Your task to perform on an android device: Play the last video I watched on Youtube Image 0: 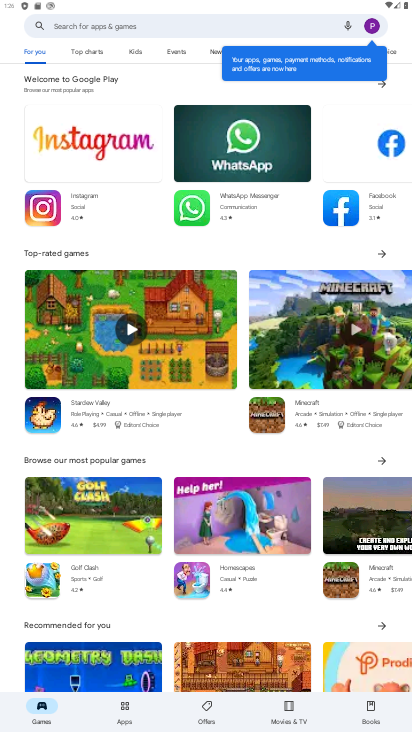
Step 0: press home button
Your task to perform on an android device: Play the last video I watched on Youtube Image 1: 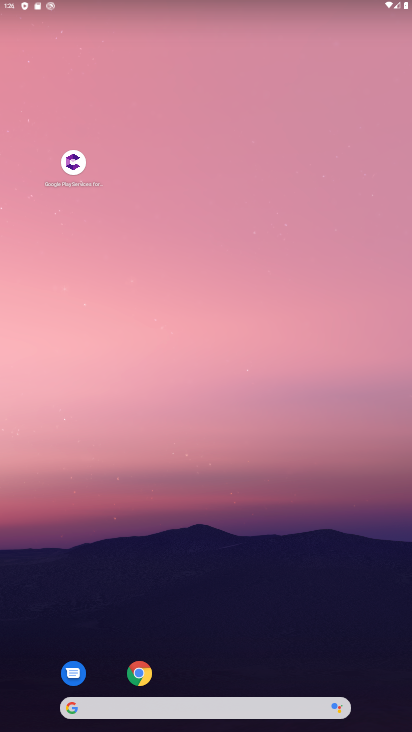
Step 1: drag from (247, 666) to (256, 89)
Your task to perform on an android device: Play the last video I watched on Youtube Image 2: 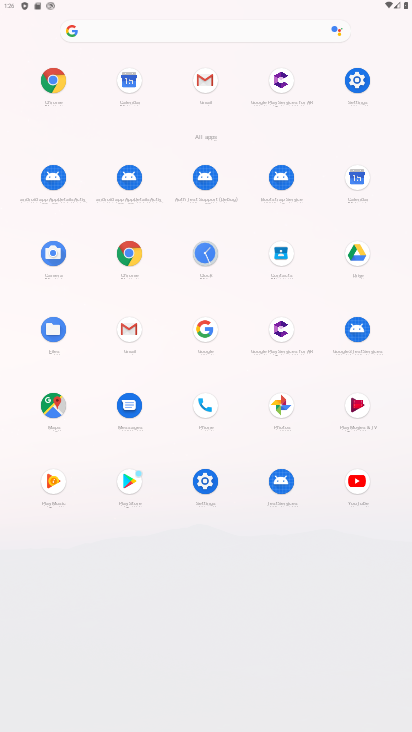
Step 2: click (357, 483)
Your task to perform on an android device: Play the last video I watched on Youtube Image 3: 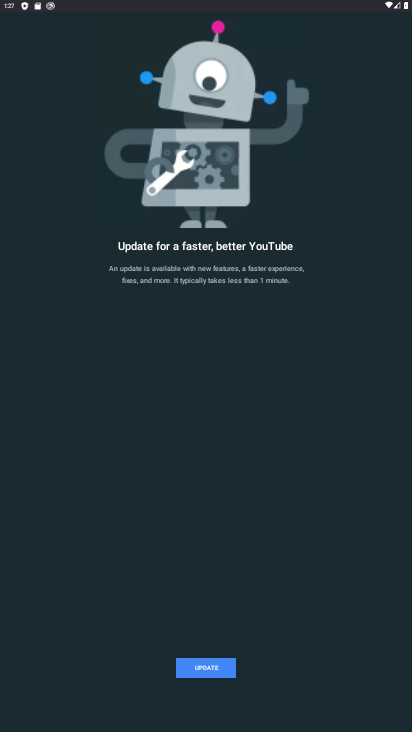
Step 3: click (204, 673)
Your task to perform on an android device: Play the last video I watched on Youtube Image 4: 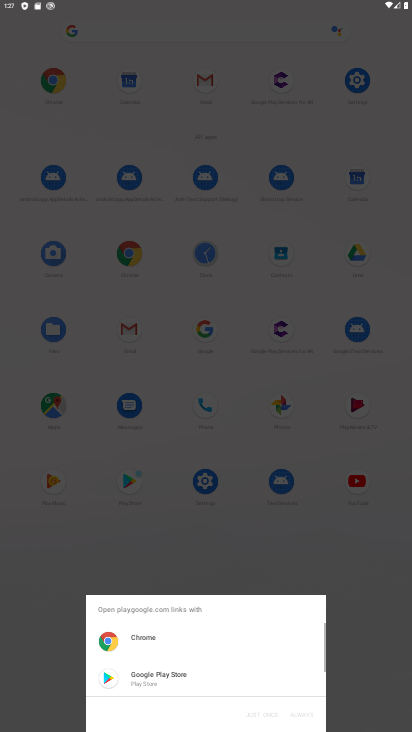
Step 4: click (155, 675)
Your task to perform on an android device: Play the last video I watched on Youtube Image 5: 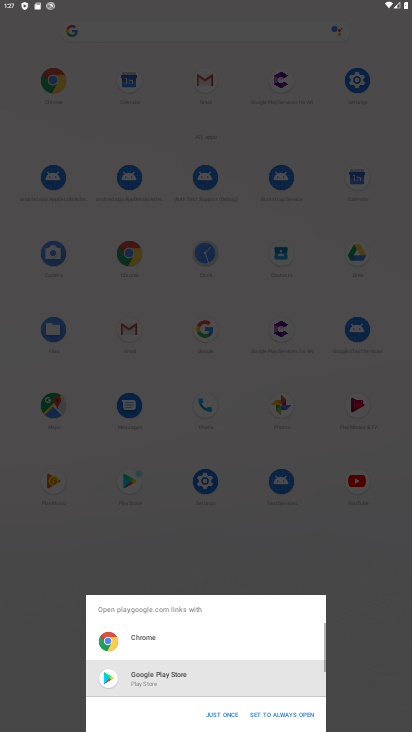
Step 5: click (225, 711)
Your task to perform on an android device: Play the last video I watched on Youtube Image 6: 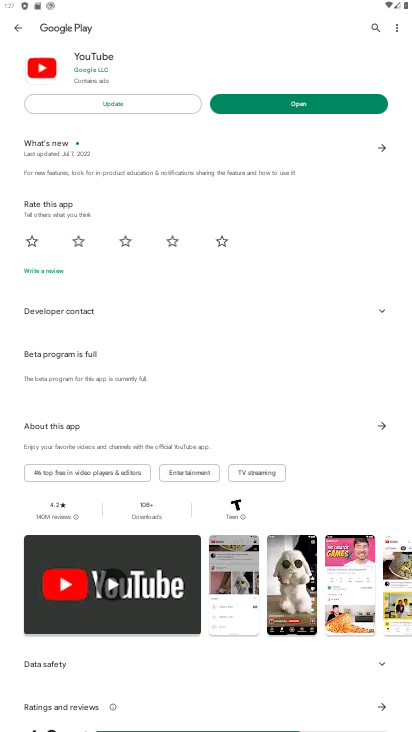
Step 6: click (125, 102)
Your task to perform on an android device: Play the last video I watched on Youtube Image 7: 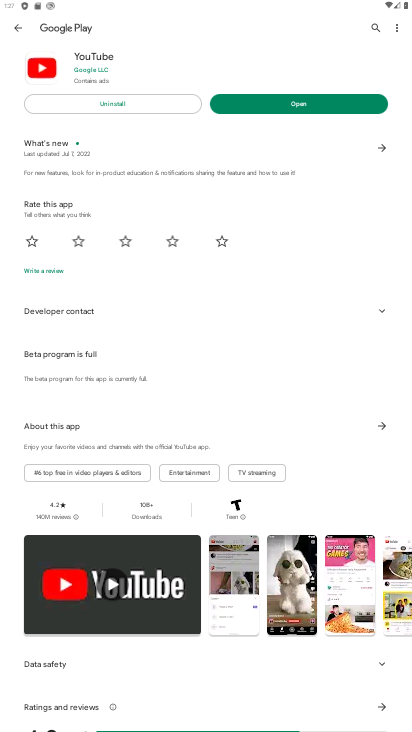
Step 7: click (298, 99)
Your task to perform on an android device: Play the last video I watched on Youtube Image 8: 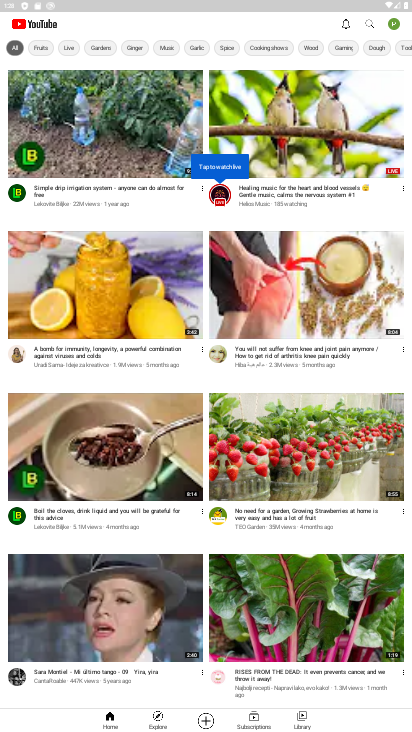
Step 8: click (368, 23)
Your task to perform on an android device: Play the last video I watched on Youtube Image 9: 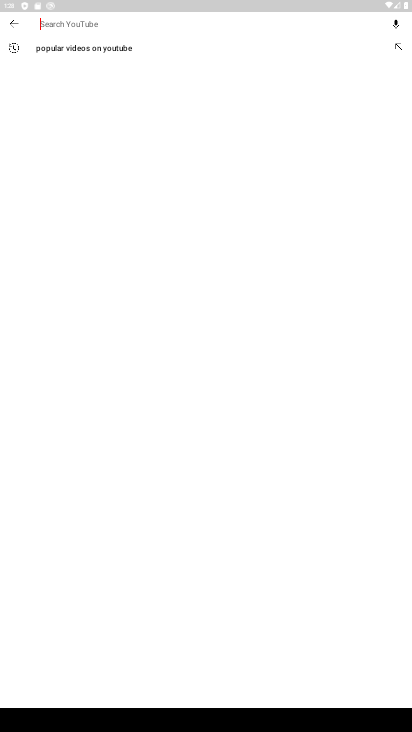
Step 9: click (124, 50)
Your task to perform on an android device: Play the last video I watched on Youtube Image 10: 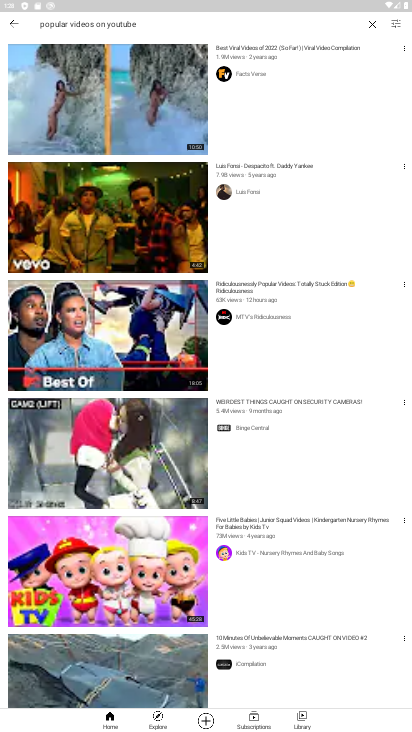
Step 10: task complete